Your task to perform on an android device: Open location settings Image 0: 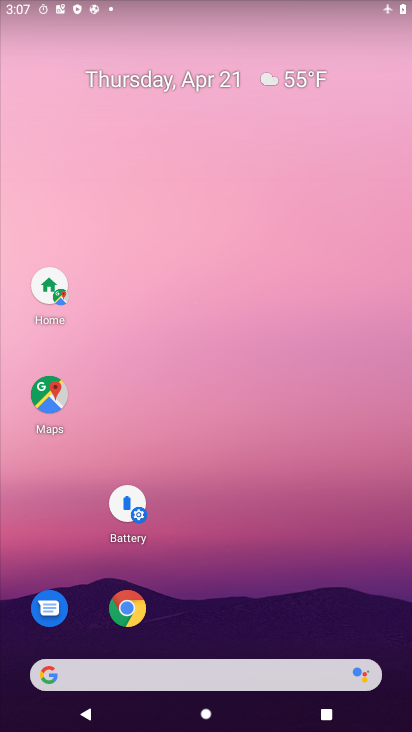
Step 0: drag from (226, 543) to (254, 54)
Your task to perform on an android device: Open location settings Image 1: 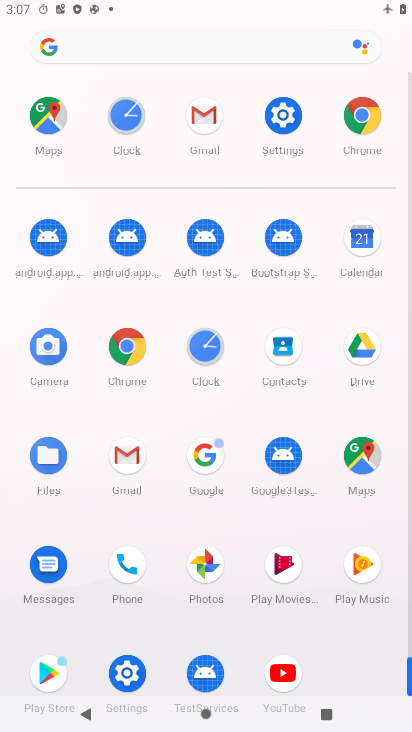
Step 1: click (284, 114)
Your task to perform on an android device: Open location settings Image 2: 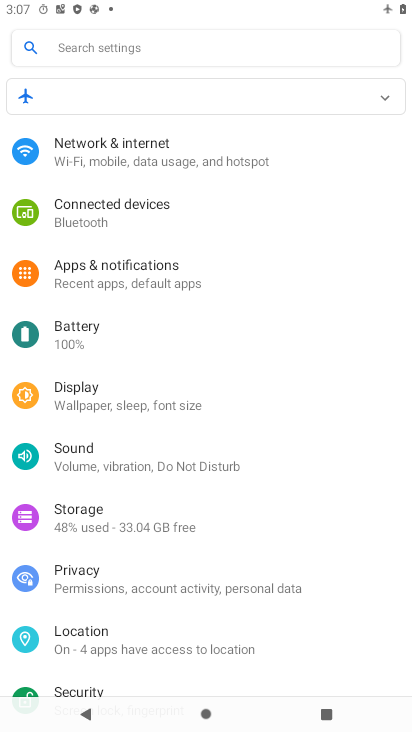
Step 2: click (145, 648)
Your task to perform on an android device: Open location settings Image 3: 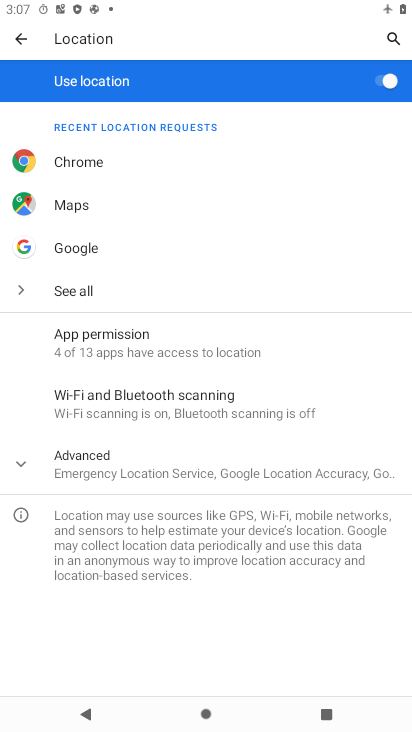
Step 3: task complete